Your task to perform on an android device: open app "HBO Max: Stream TV & Movies" (install if not already installed) and enter user name: "faring@outlook.com" and password: "appropriately" Image 0: 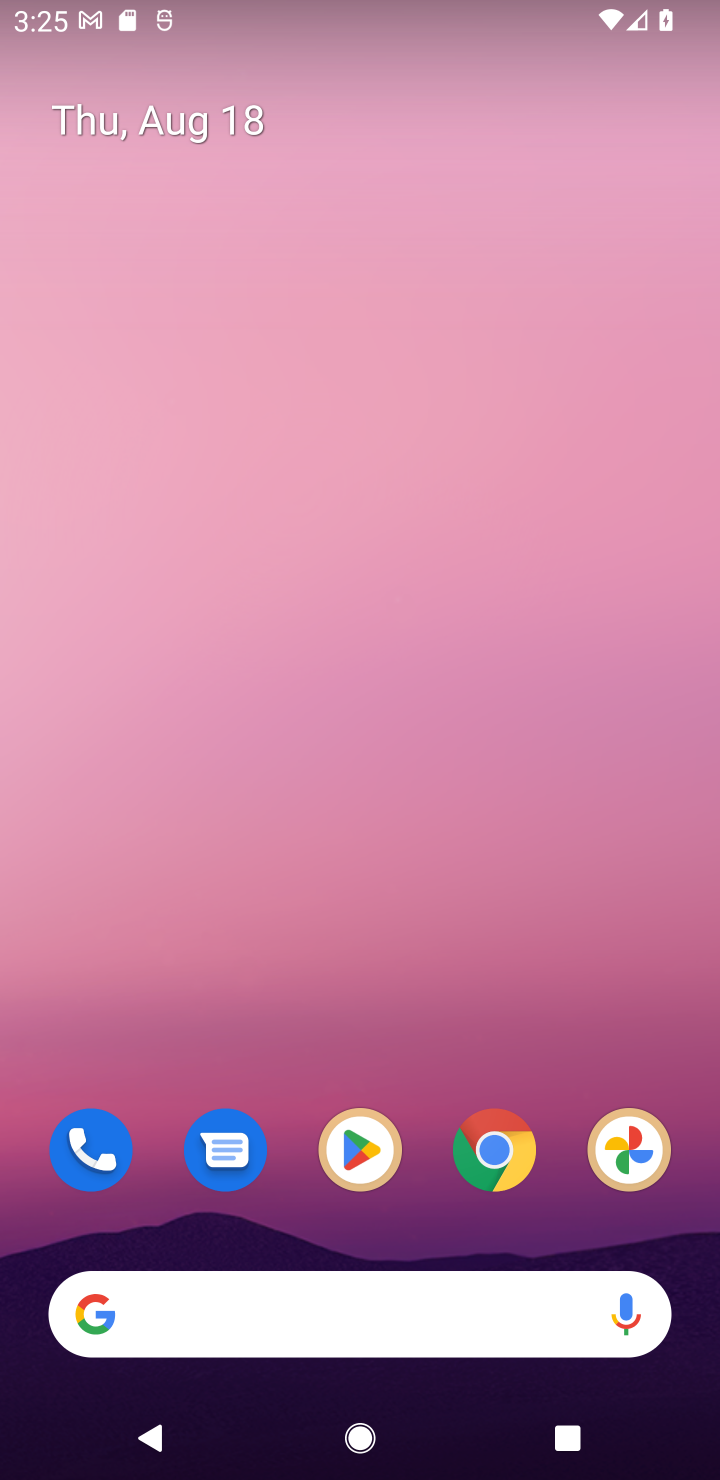
Step 0: click (361, 1152)
Your task to perform on an android device: open app "HBO Max: Stream TV & Movies" (install if not already installed) and enter user name: "faring@outlook.com" and password: "appropriately" Image 1: 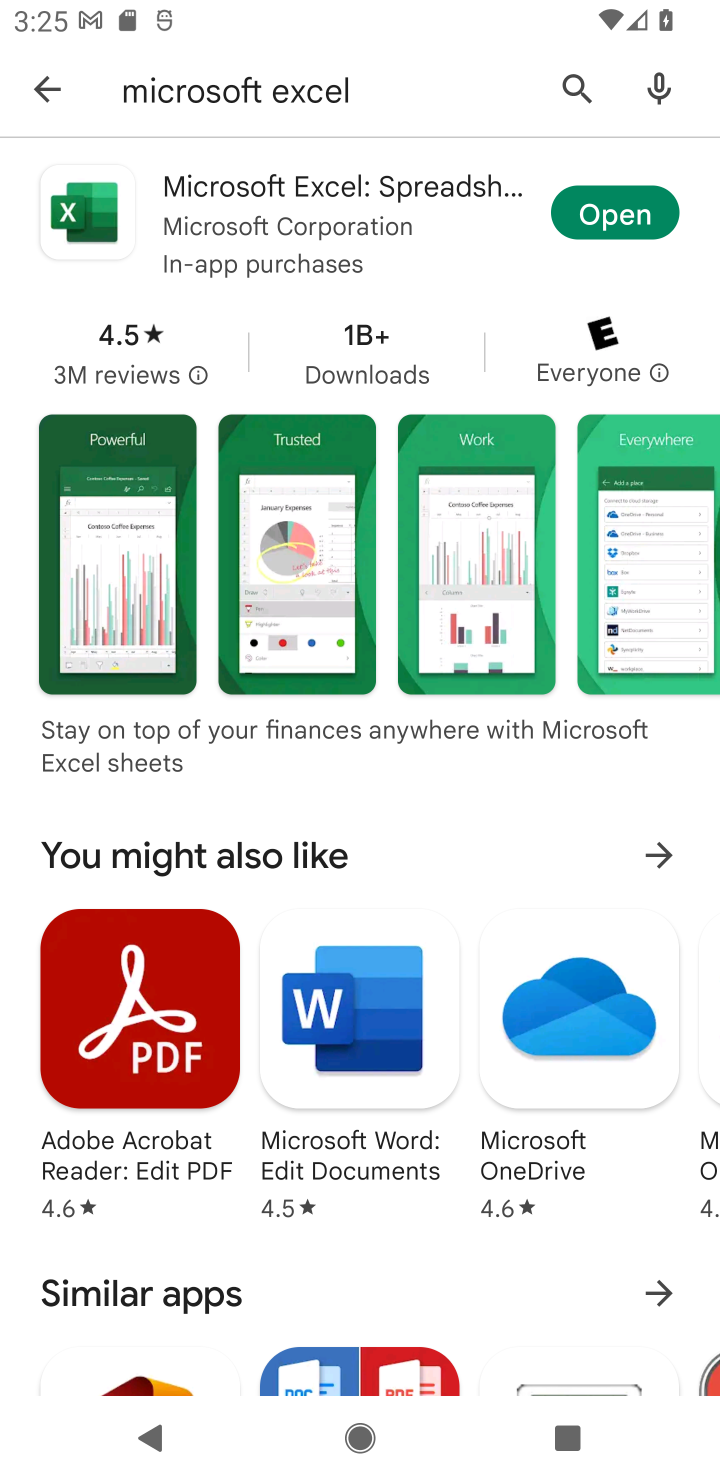
Step 1: click (582, 83)
Your task to perform on an android device: open app "HBO Max: Stream TV & Movies" (install if not already installed) and enter user name: "faring@outlook.com" and password: "appropriately" Image 2: 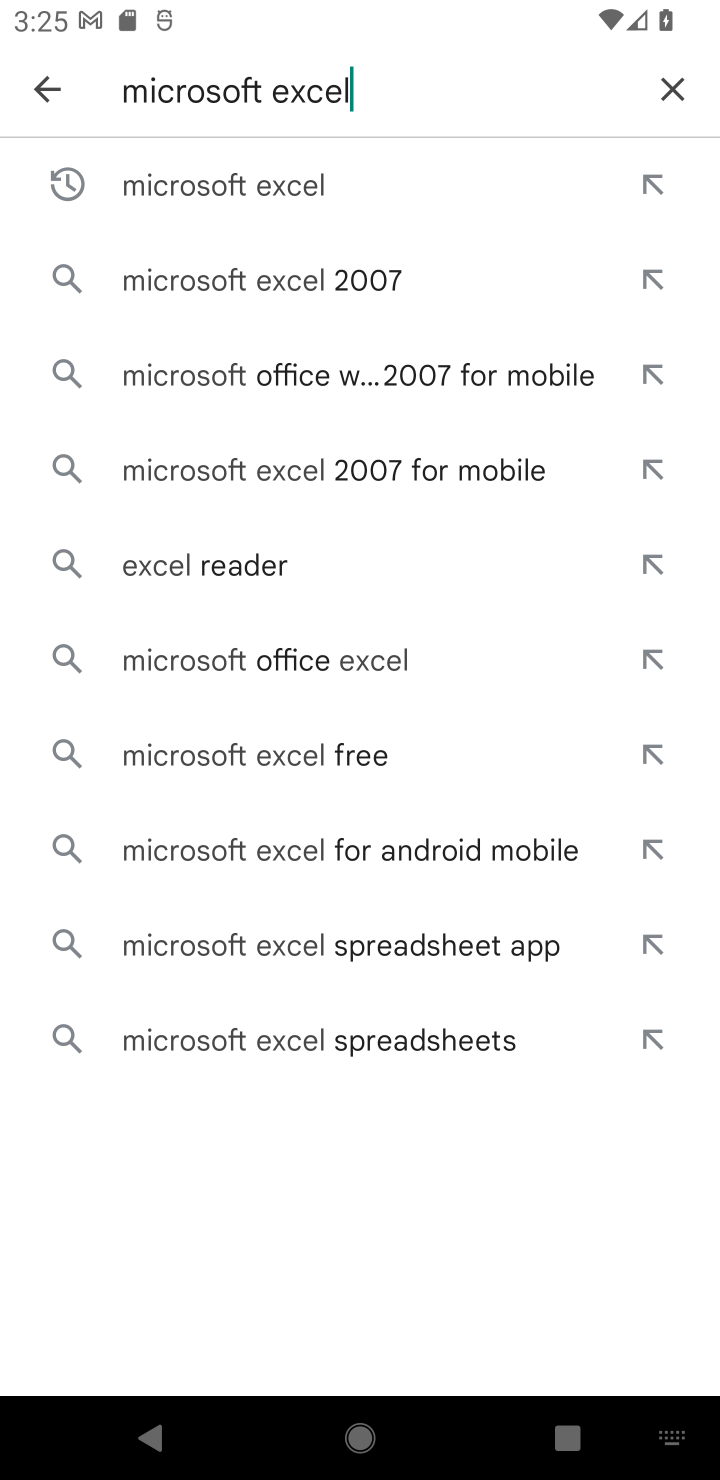
Step 2: click (670, 87)
Your task to perform on an android device: open app "HBO Max: Stream TV & Movies" (install if not already installed) and enter user name: "faring@outlook.com" and password: "appropriately" Image 3: 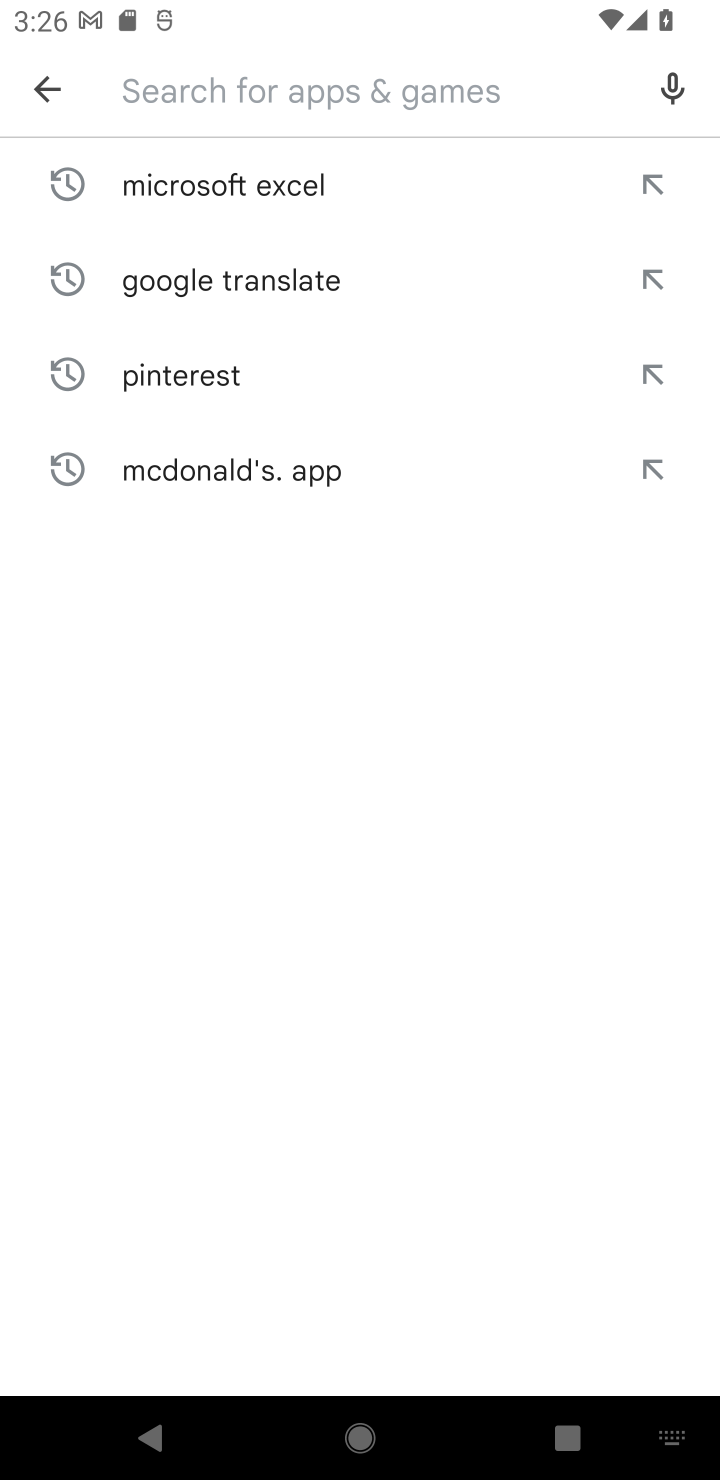
Step 3: type "HBO Max: Stream TV & Movies"
Your task to perform on an android device: open app "HBO Max: Stream TV & Movies" (install if not already installed) and enter user name: "faring@outlook.com" and password: "appropriately" Image 4: 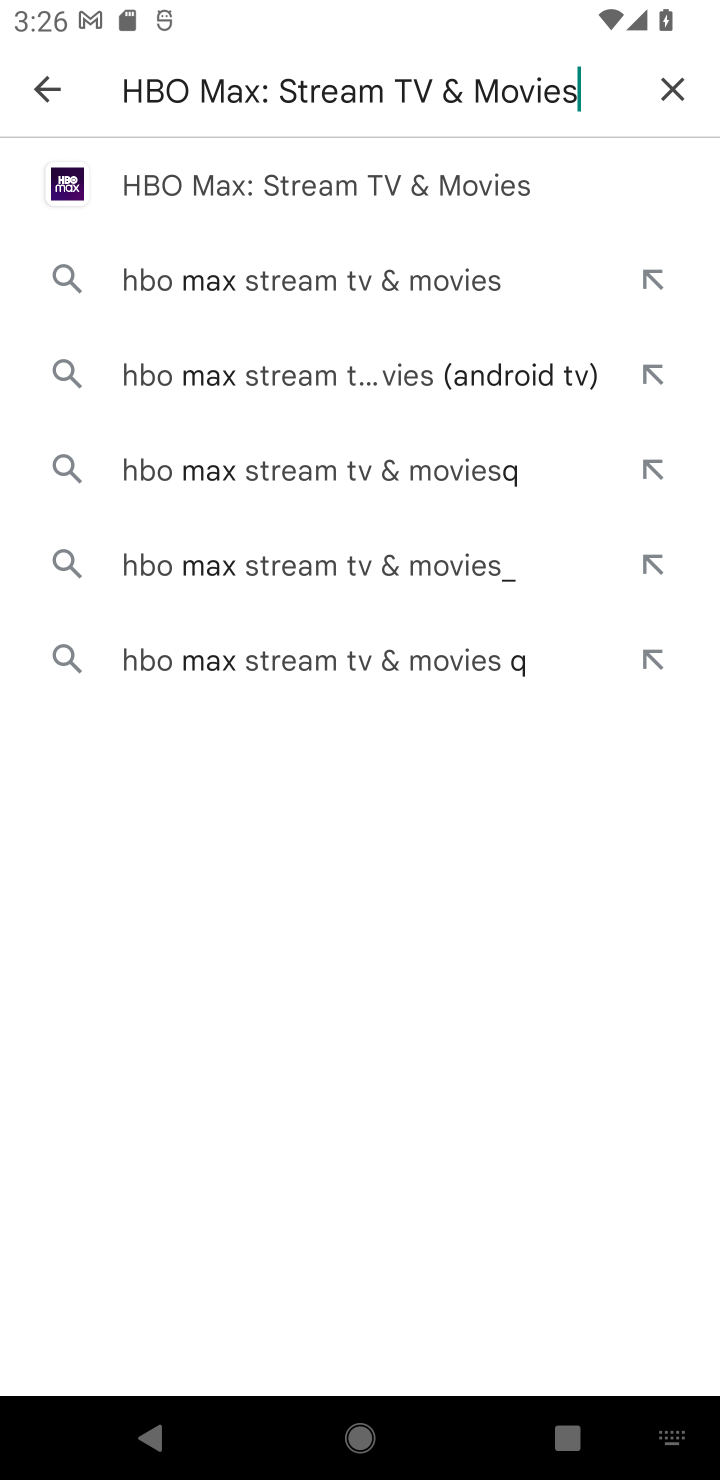
Step 4: click (227, 187)
Your task to perform on an android device: open app "HBO Max: Stream TV & Movies" (install if not already installed) and enter user name: "faring@outlook.com" and password: "appropriately" Image 5: 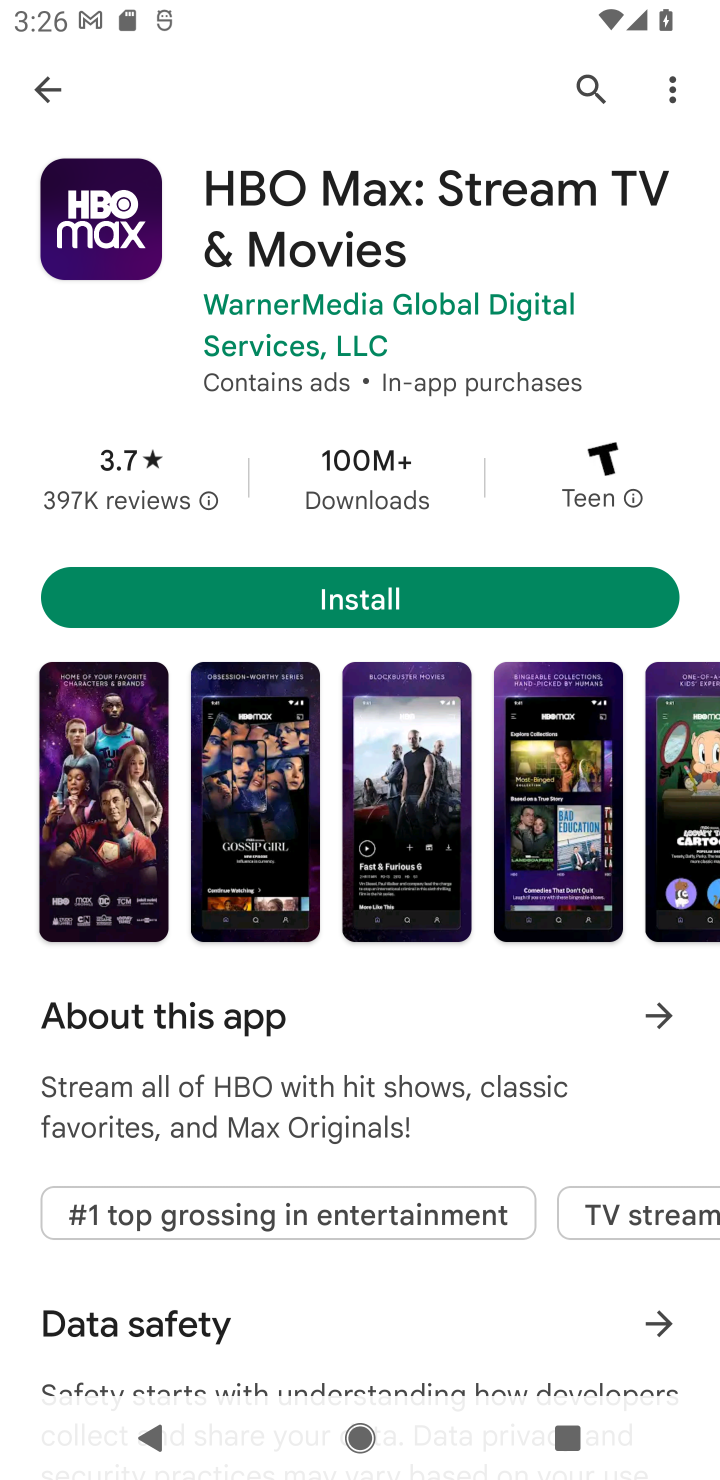
Step 5: click (361, 594)
Your task to perform on an android device: open app "HBO Max: Stream TV & Movies" (install if not already installed) and enter user name: "faring@outlook.com" and password: "appropriately" Image 6: 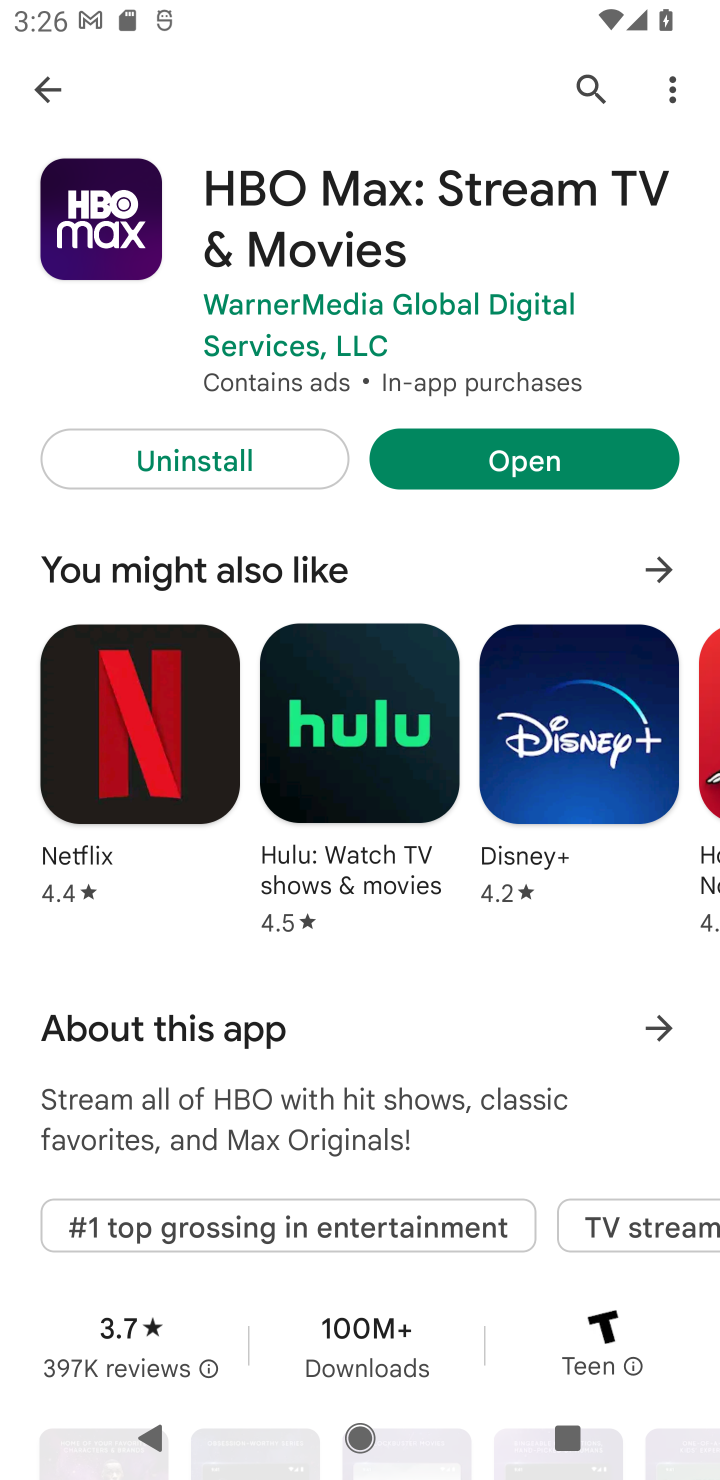
Step 6: click (530, 458)
Your task to perform on an android device: open app "HBO Max: Stream TV & Movies" (install if not already installed) and enter user name: "faring@outlook.com" and password: "appropriately" Image 7: 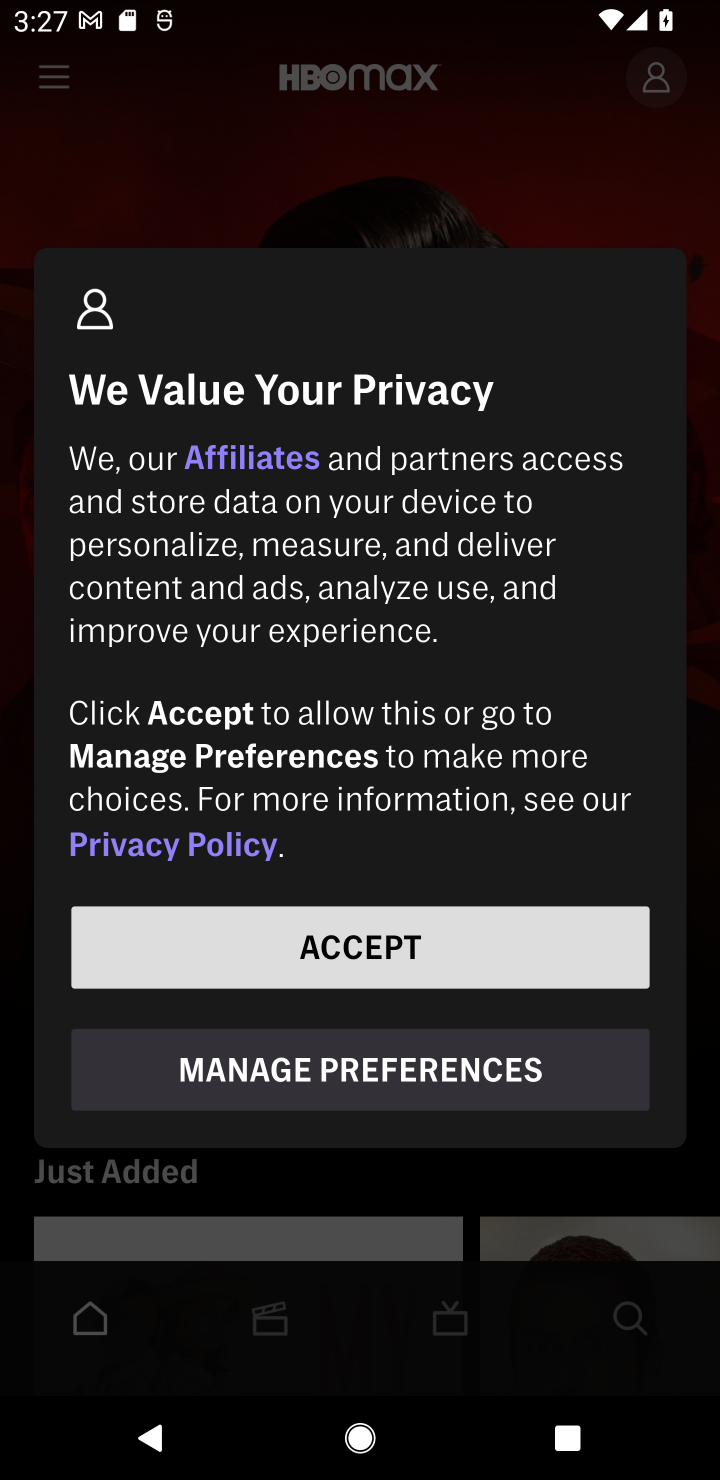
Step 7: click (357, 940)
Your task to perform on an android device: open app "HBO Max: Stream TV & Movies" (install if not already installed) and enter user name: "faring@outlook.com" and password: "appropriately" Image 8: 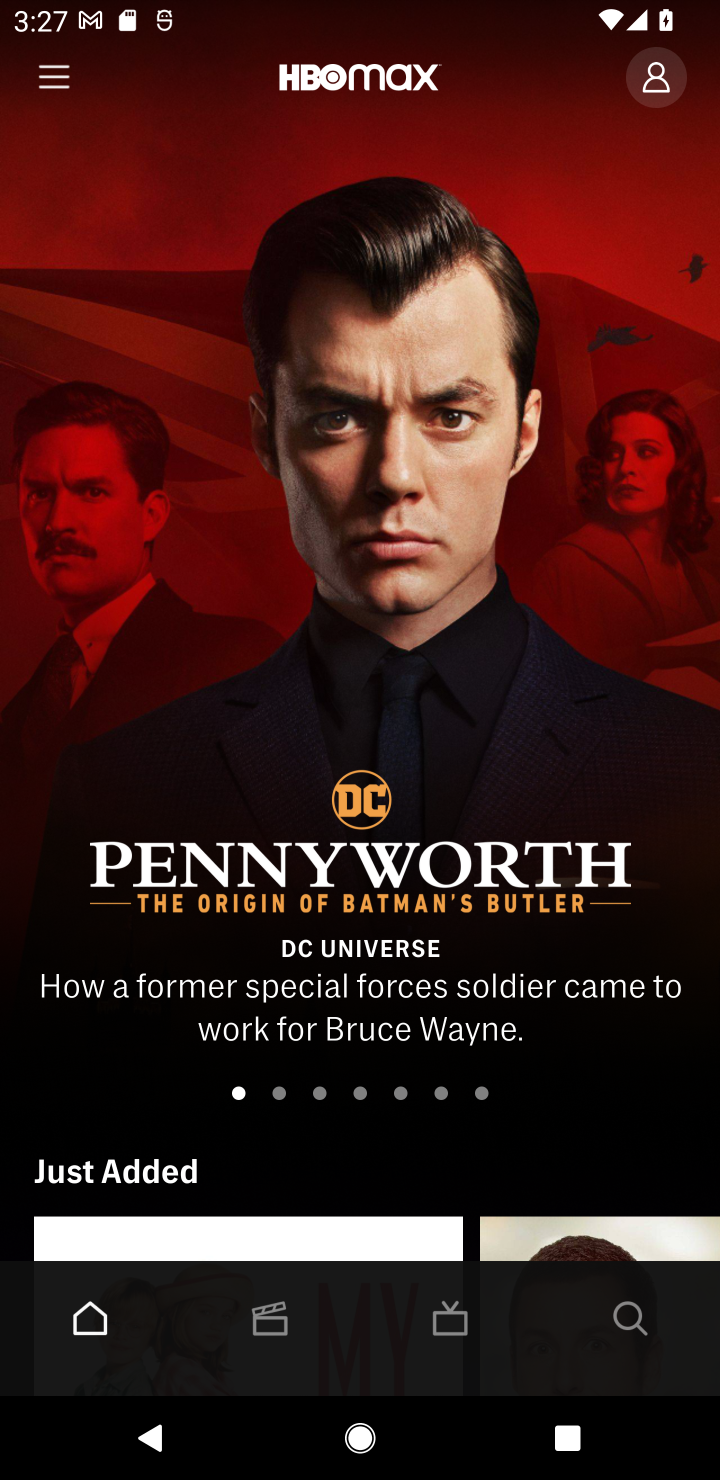
Step 8: click (649, 88)
Your task to perform on an android device: open app "HBO Max: Stream TV & Movies" (install if not already installed) and enter user name: "faring@outlook.com" and password: "appropriately" Image 9: 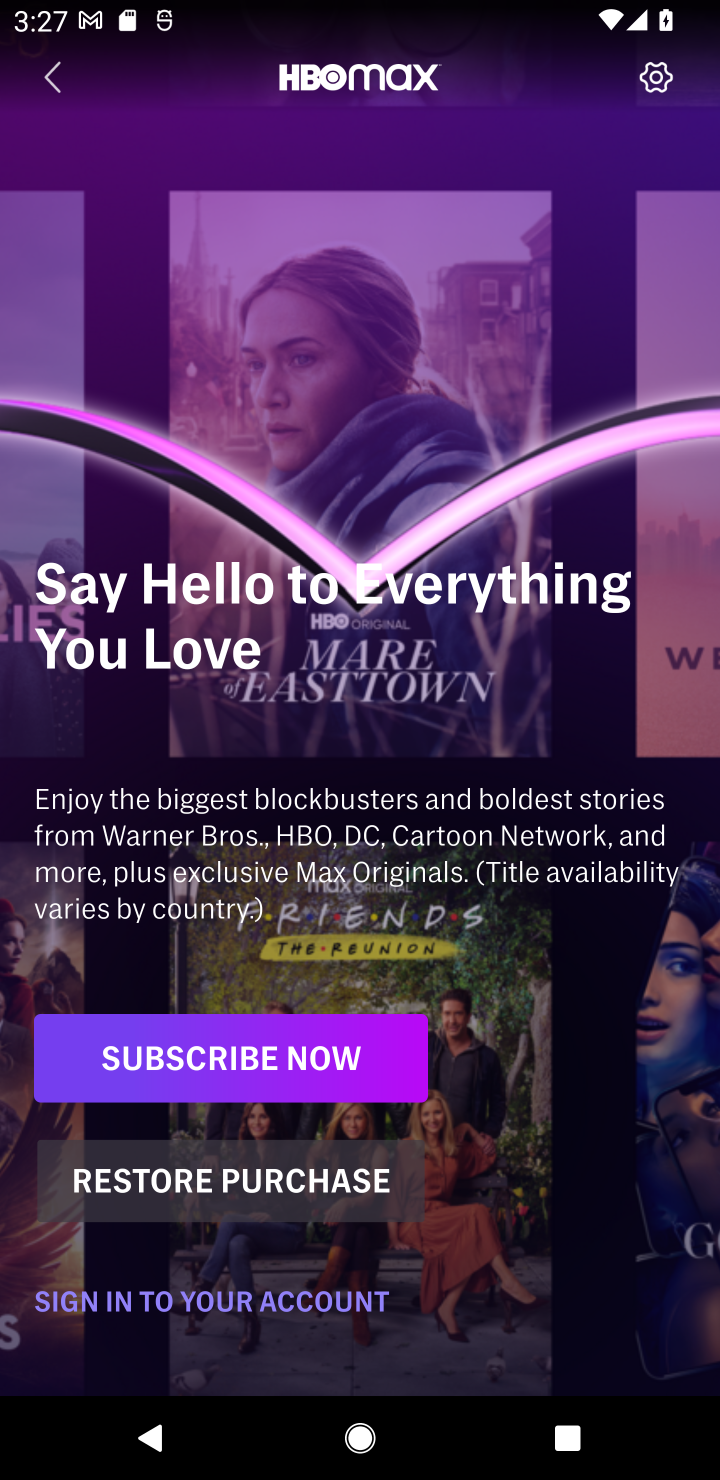
Step 9: click (204, 1308)
Your task to perform on an android device: open app "HBO Max: Stream TV & Movies" (install if not already installed) and enter user name: "faring@outlook.com" and password: "appropriately" Image 10: 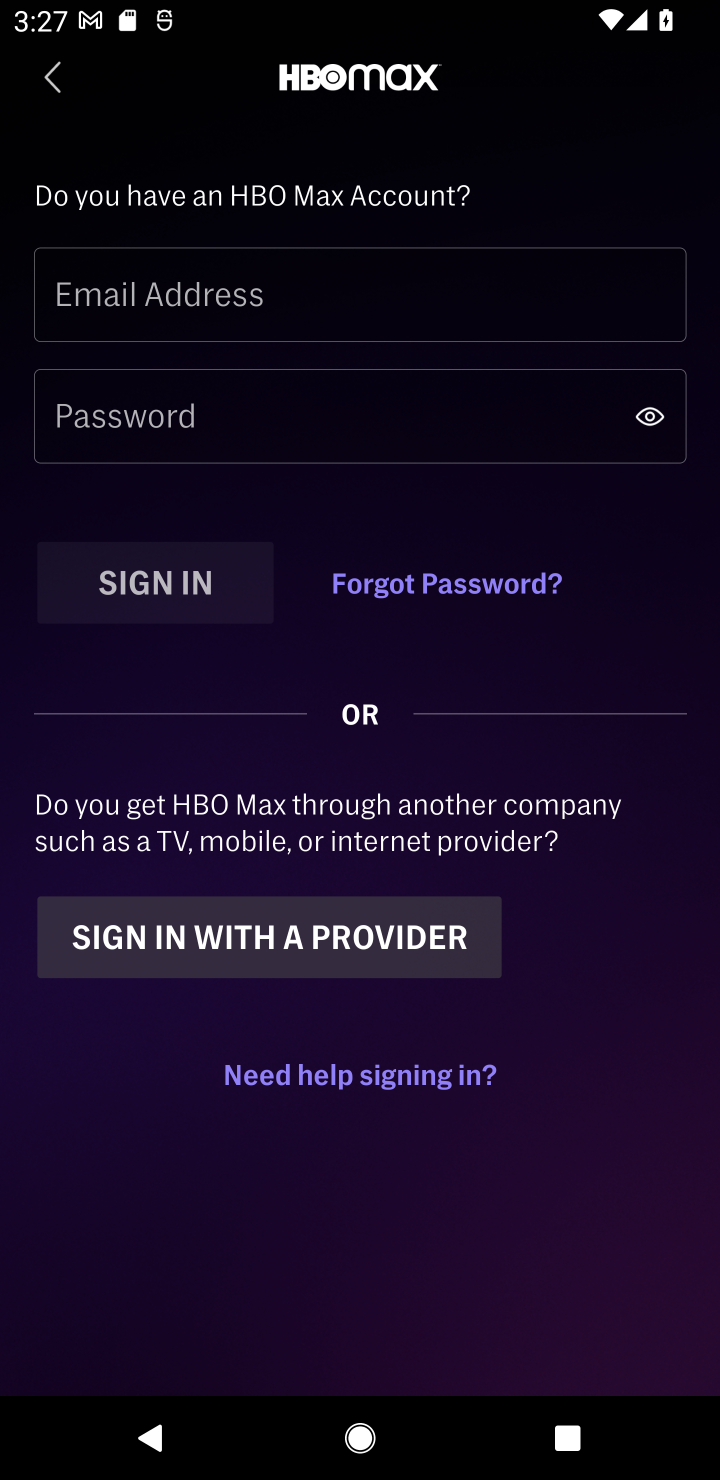
Step 10: click (164, 284)
Your task to perform on an android device: open app "HBO Max: Stream TV & Movies" (install if not already installed) and enter user name: "faring@outlook.com" and password: "appropriately" Image 11: 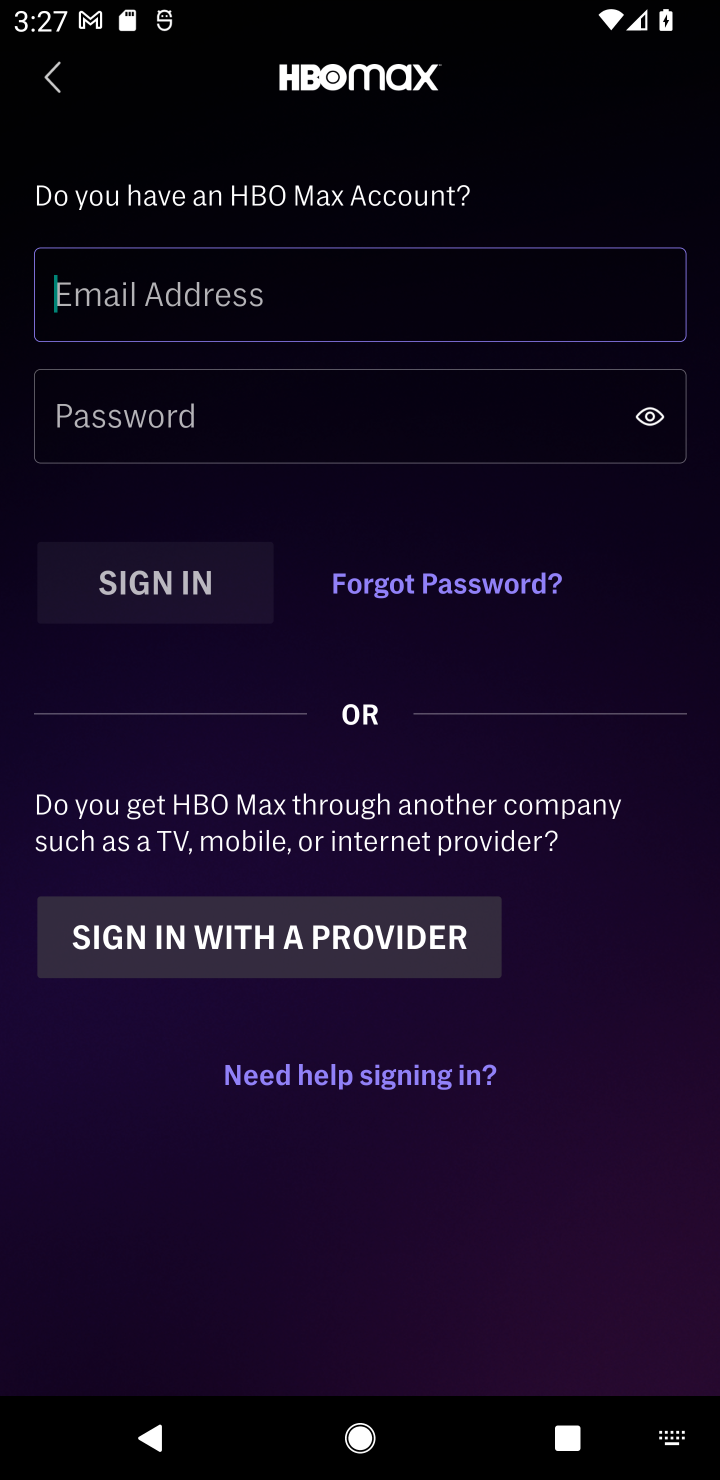
Step 11: type "faring@outlook.com"
Your task to perform on an android device: open app "HBO Max: Stream TV & Movies" (install if not already installed) and enter user name: "faring@outlook.com" and password: "appropriately" Image 12: 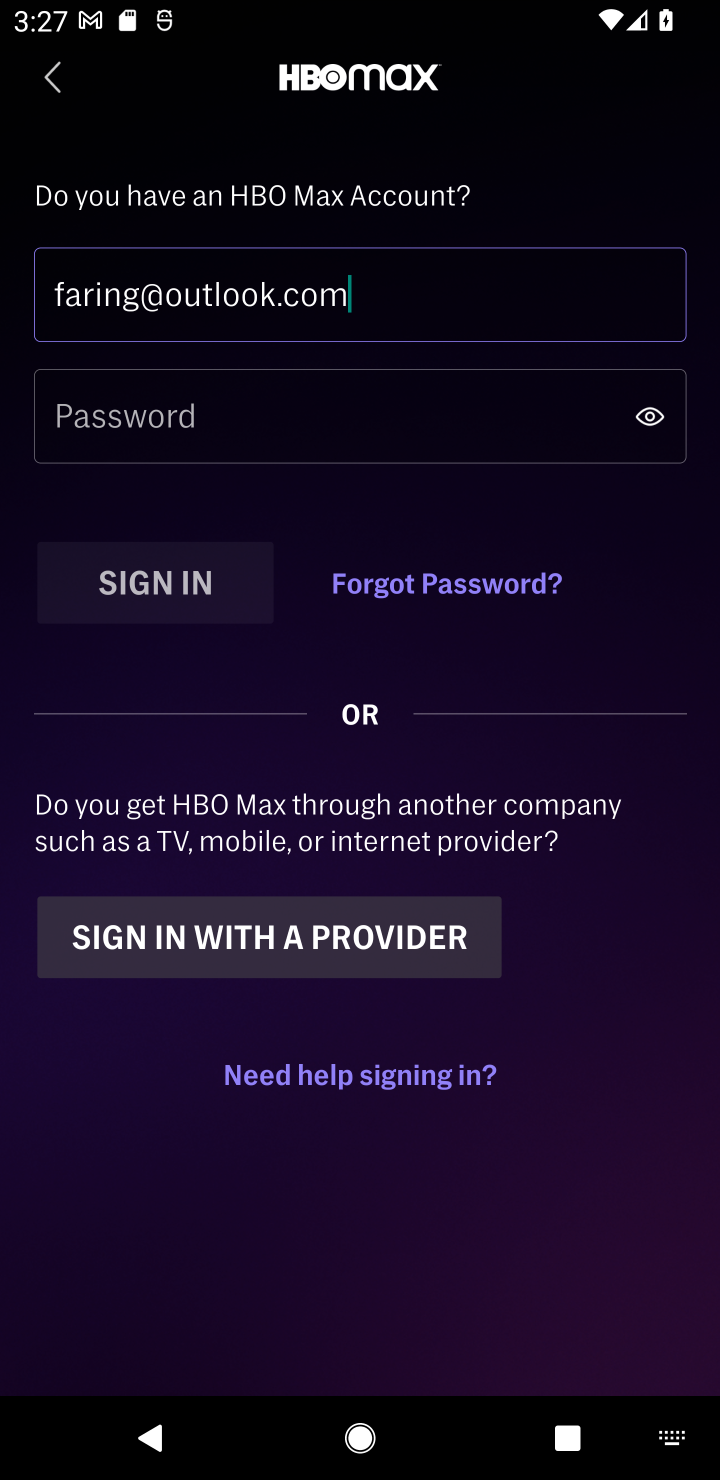
Step 12: click (195, 403)
Your task to perform on an android device: open app "HBO Max: Stream TV & Movies" (install if not already installed) and enter user name: "faring@outlook.com" and password: "appropriately" Image 13: 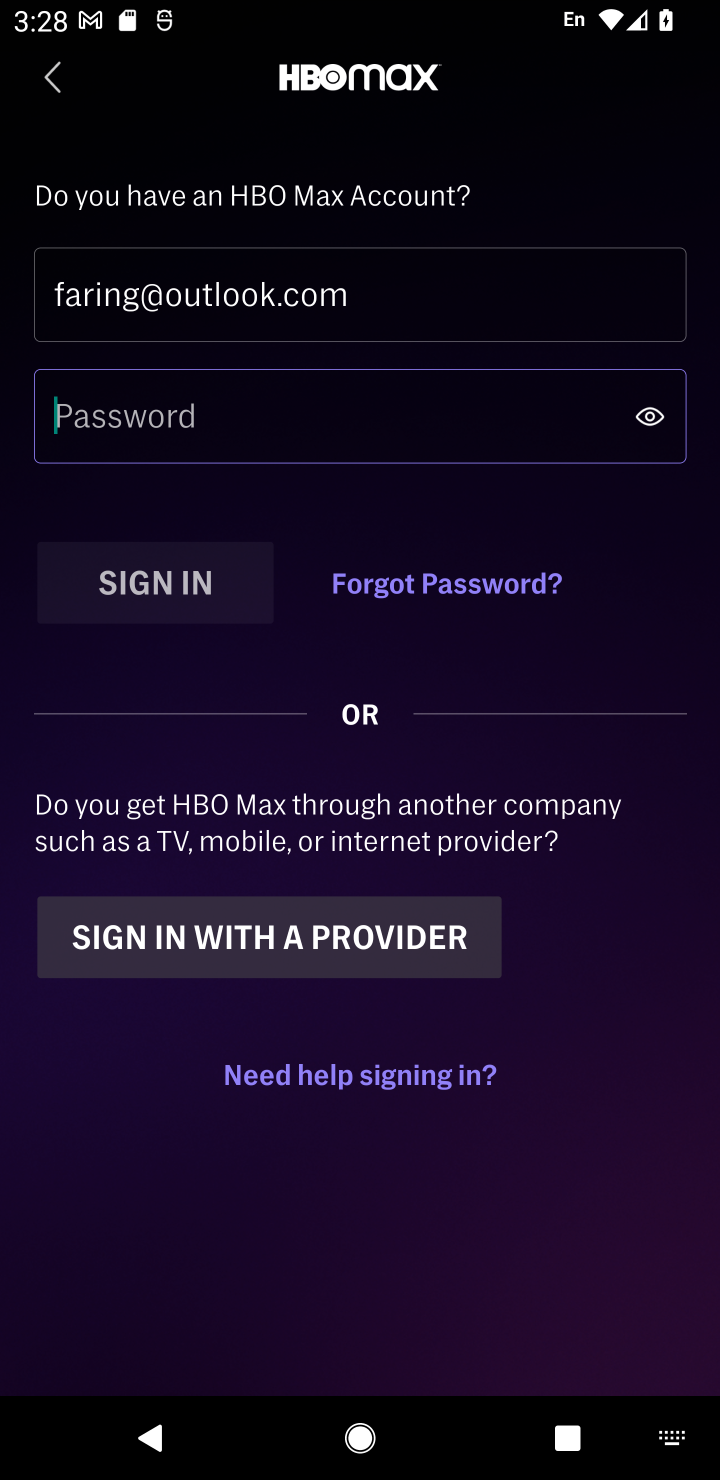
Step 13: type "appropriately"
Your task to perform on an android device: open app "HBO Max: Stream TV & Movies" (install if not already installed) and enter user name: "faring@outlook.com" and password: "appropriately" Image 14: 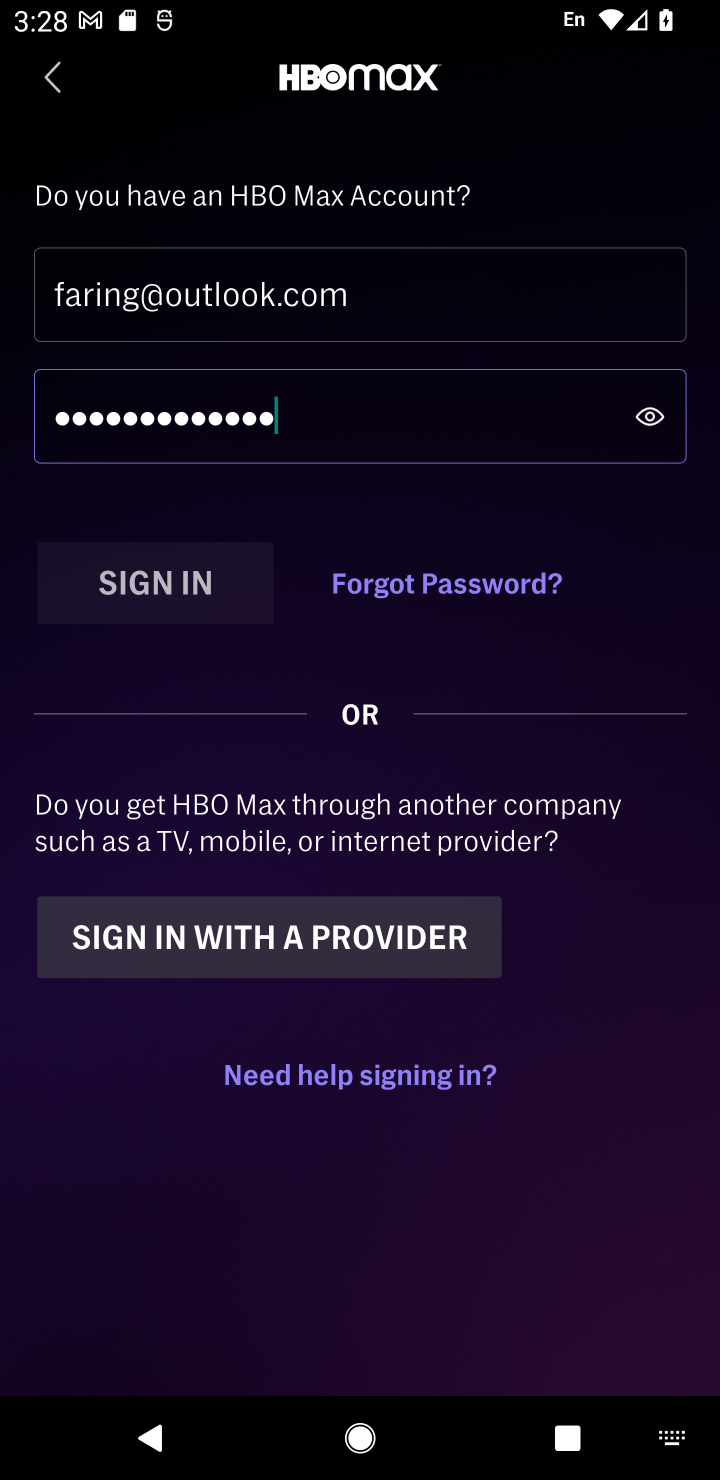
Step 14: task complete